Your task to perform on an android device: Open privacy settings Image 0: 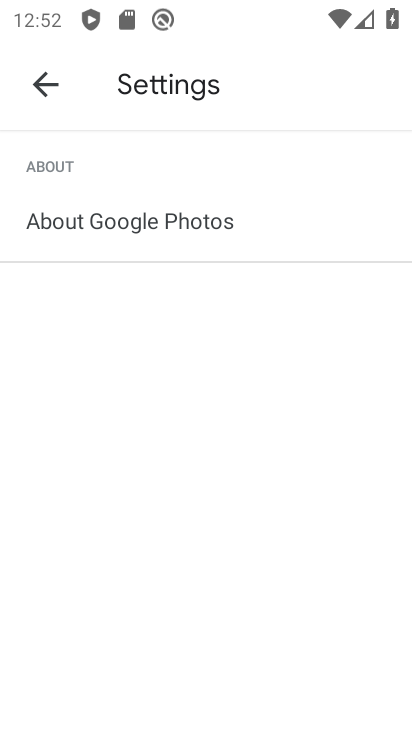
Step 0: press home button
Your task to perform on an android device: Open privacy settings Image 1: 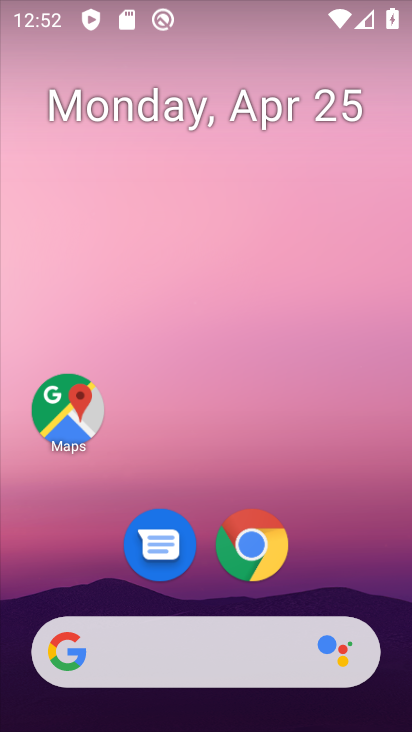
Step 1: click (256, 548)
Your task to perform on an android device: Open privacy settings Image 2: 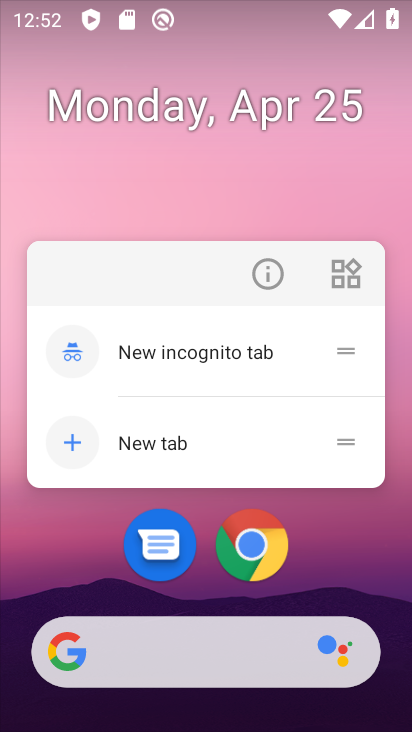
Step 2: click (256, 548)
Your task to perform on an android device: Open privacy settings Image 3: 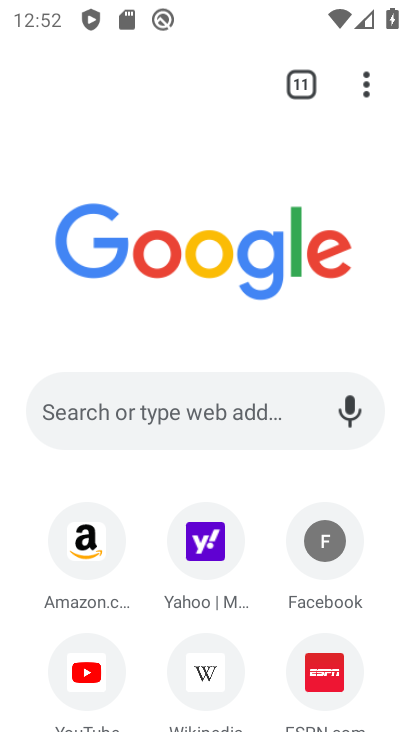
Step 3: drag from (363, 91) to (74, 583)
Your task to perform on an android device: Open privacy settings Image 4: 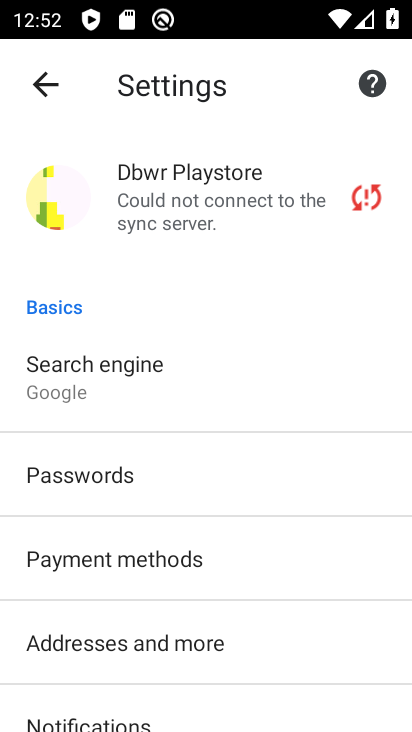
Step 4: drag from (131, 678) to (109, 312)
Your task to perform on an android device: Open privacy settings Image 5: 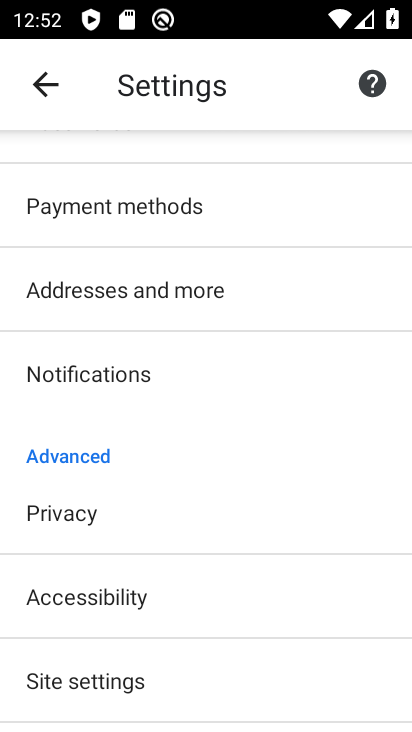
Step 5: click (51, 515)
Your task to perform on an android device: Open privacy settings Image 6: 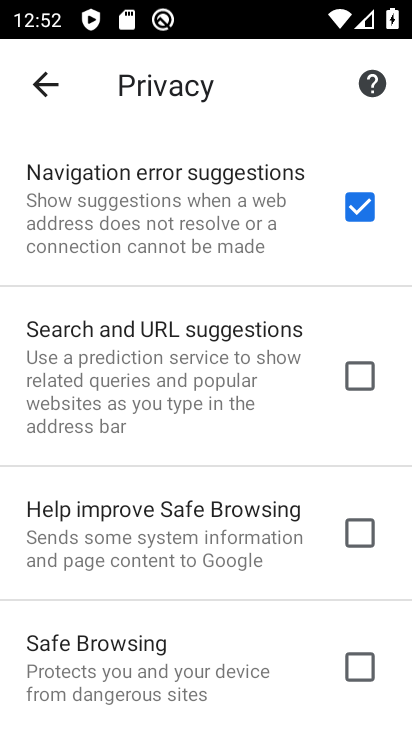
Step 6: task complete